Your task to perform on an android device: turn on notifications settings in the gmail app Image 0: 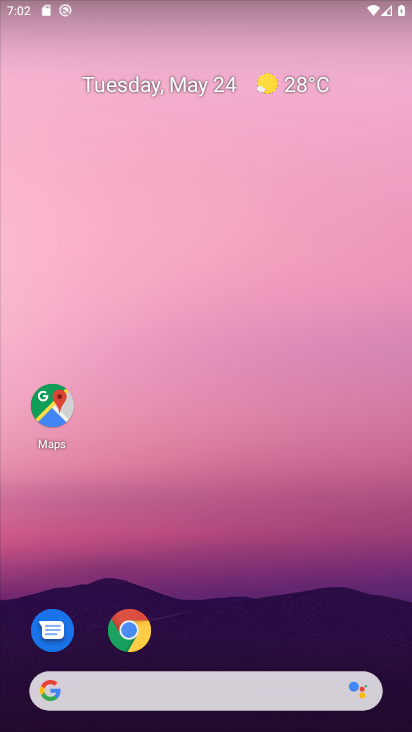
Step 0: drag from (266, 714) to (260, 272)
Your task to perform on an android device: turn on notifications settings in the gmail app Image 1: 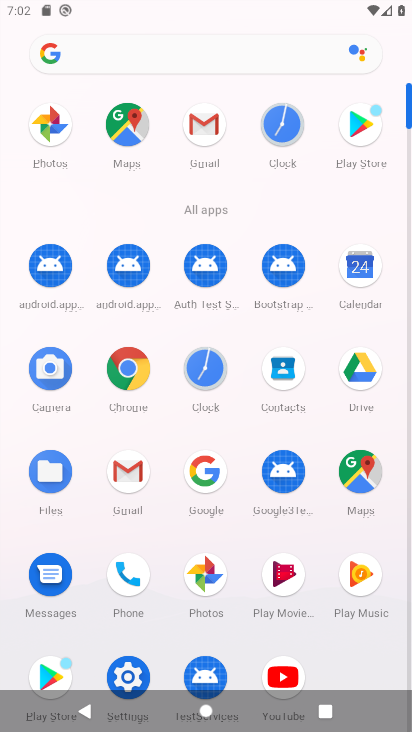
Step 1: click (206, 113)
Your task to perform on an android device: turn on notifications settings in the gmail app Image 2: 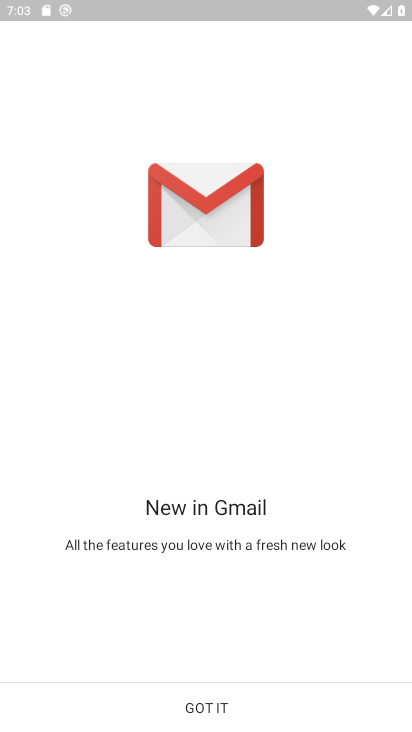
Step 2: click (219, 701)
Your task to perform on an android device: turn on notifications settings in the gmail app Image 3: 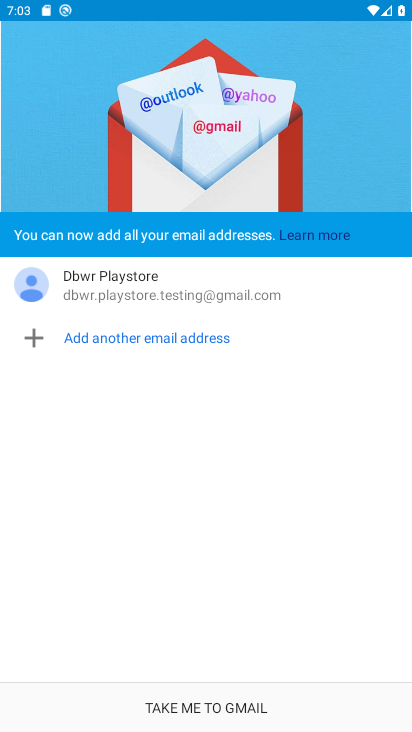
Step 3: click (205, 701)
Your task to perform on an android device: turn on notifications settings in the gmail app Image 4: 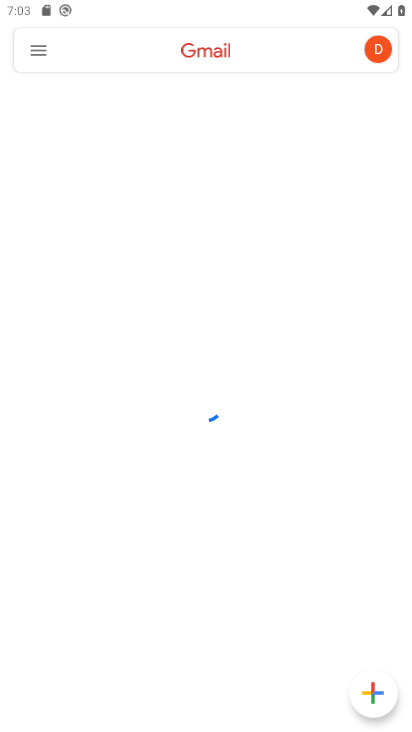
Step 4: click (43, 35)
Your task to perform on an android device: turn on notifications settings in the gmail app Image 5: 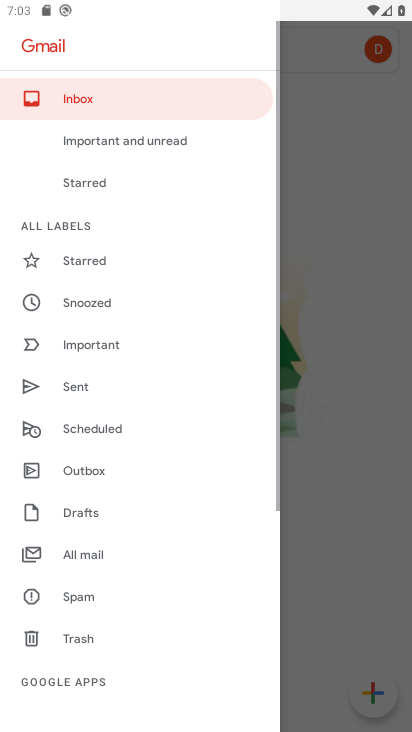
Step 5: drag from (102, 652) to (122, 523)
Your task to perform on an android device: turn on notifications settings in the gmail app Image 6: 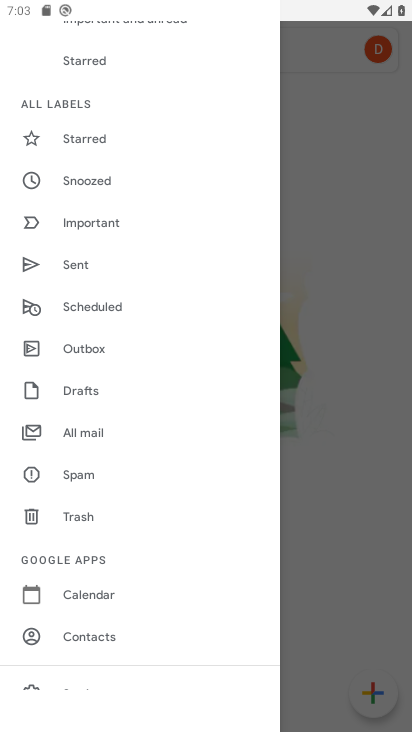
Step 6: drag from (93, 664) to (117, 607)
Your task to perform on an android device: turn on notifications settings in the gmail app Image 7: 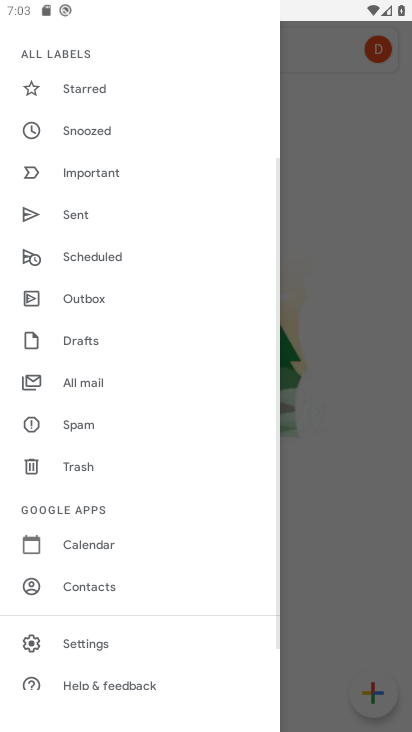
Step 7: click (97, 644)
Your task to perform on an android device: turn on notifications settings in the gmail app Image 8: 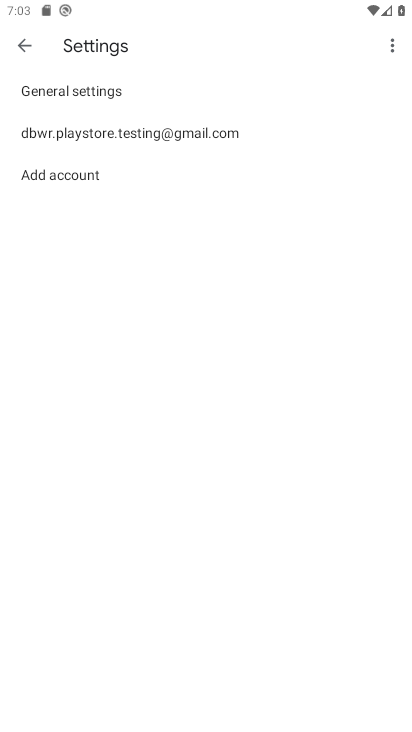
Step 8: click (114, 139)
Your task to perform on an android device: turn on notifications settings in the gmail app Image 9: 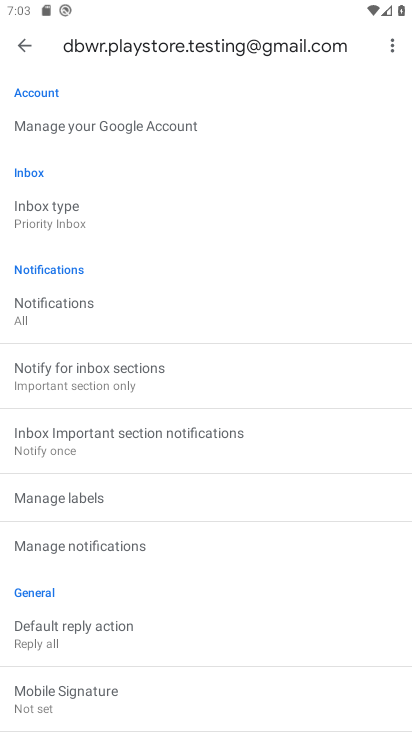
Step 9: click (76, 314)
Your task to perform on an android device: turn on notifications settings in the gmail app Image 10: 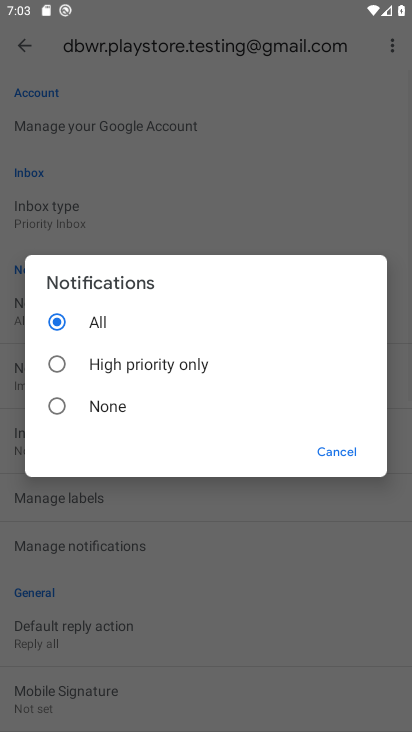
Step 10: task complete